Your task to perform on an android device: Open Google Chrome and click the shortcut for Amazon.com Image 0: 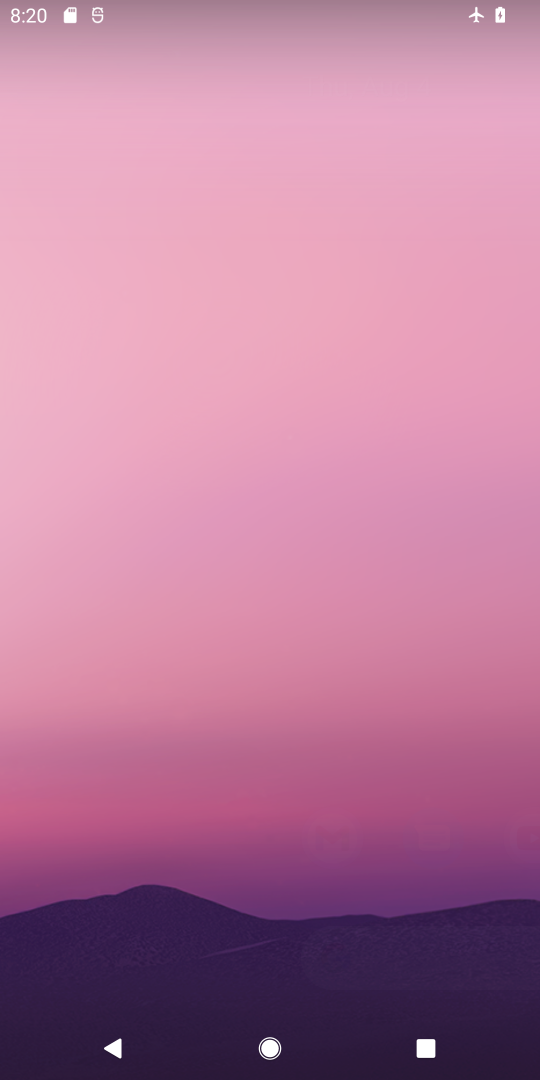
Step 0: press home button
Your task to perform on an android device: Open Google Chrome and click the shortcut for Amazon.com Image 1: 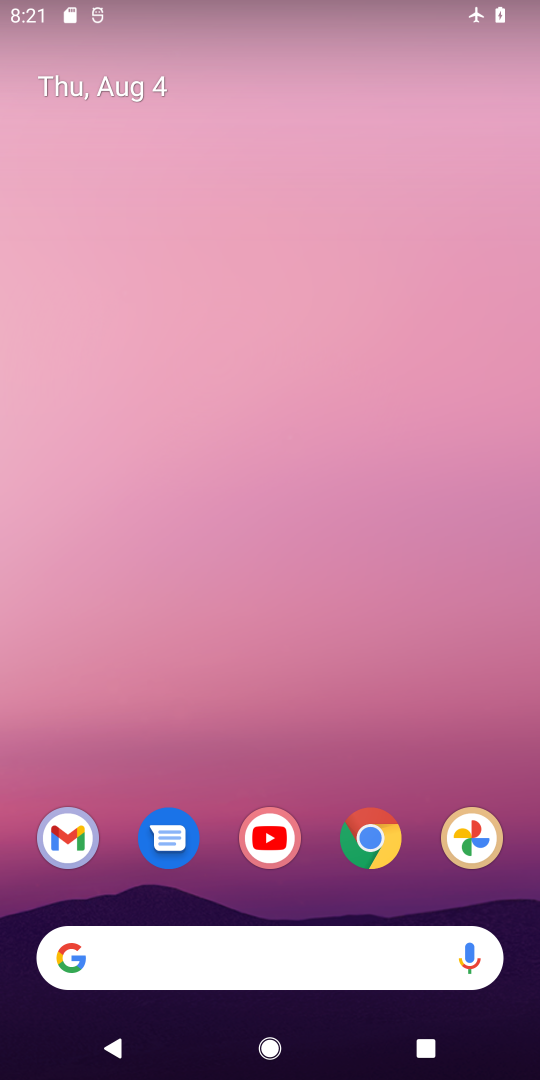
Step 1: drag from (246, 759) to (255, 257)
Your task to perform on an android device: Open Google Chrome and click the shortcut for Amazon.com Image 2: 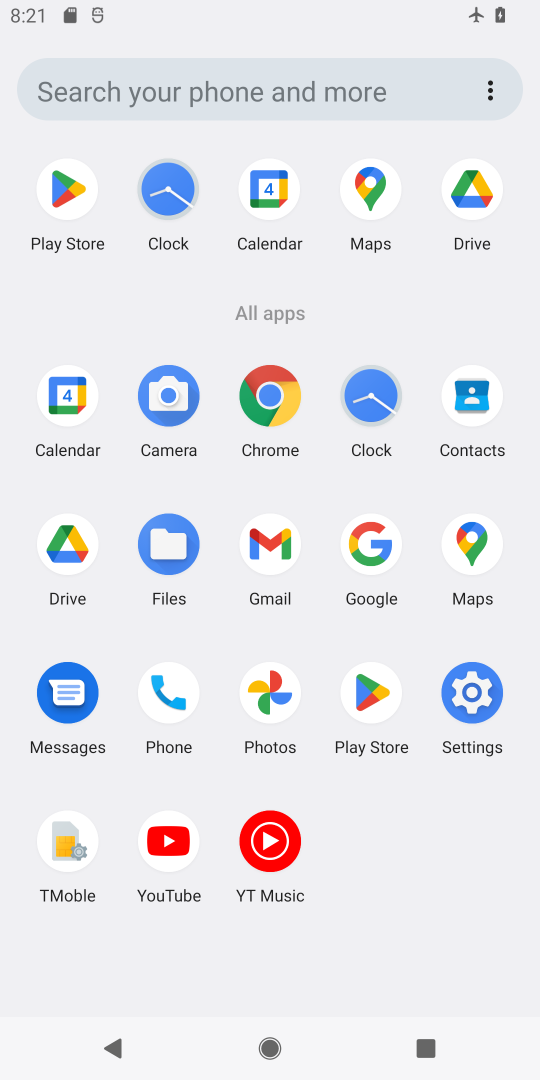
Step 2: click (281, 398)
Your task to perform on an android device: Open Google Chrome and click the shortcut for Amazon.com Image 3: 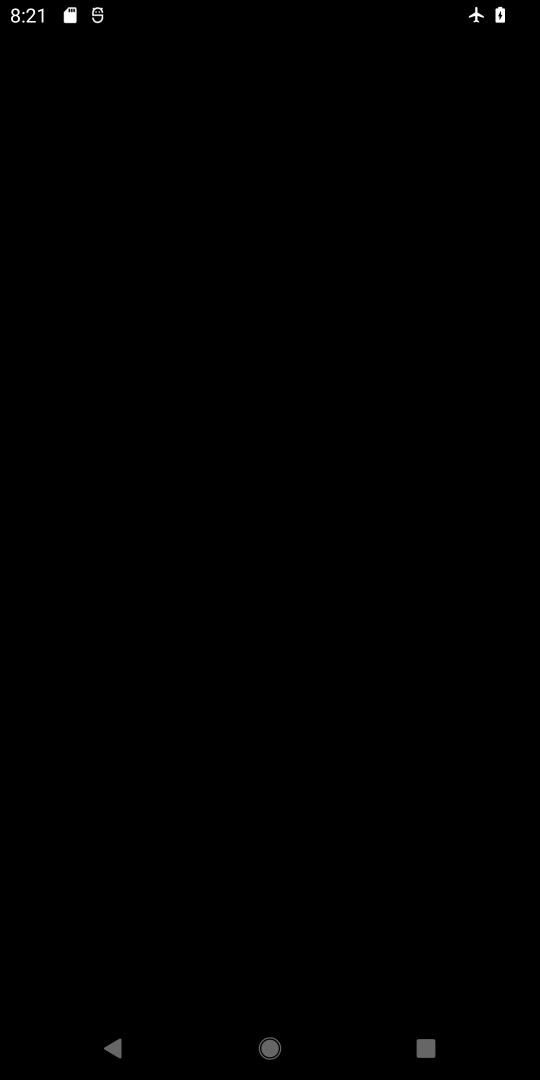
Step 3: press home button
Your task to perform on an android device: Open Google Chrome and click the shortcut for Amazon.com Image 4: 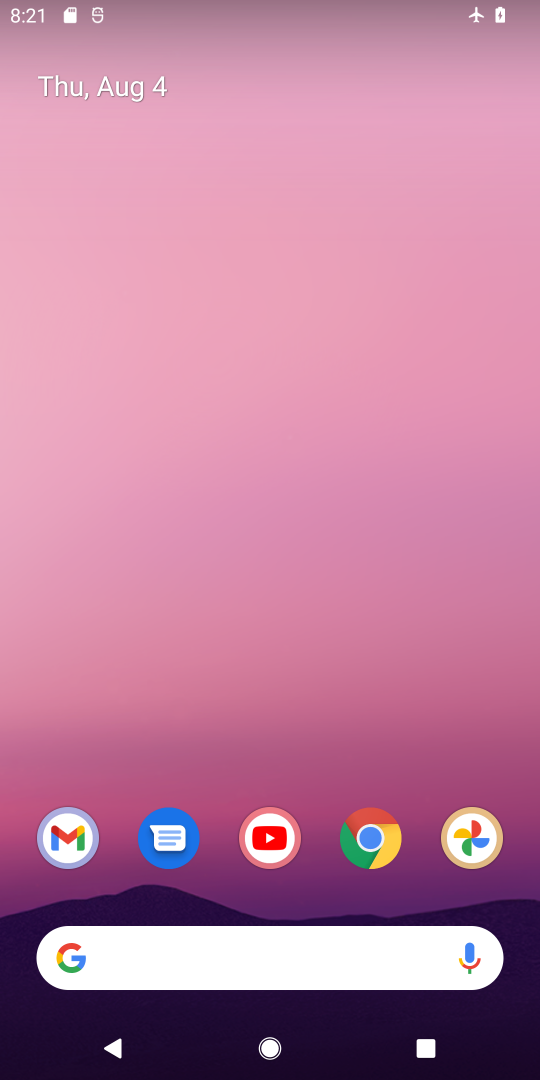
Step 4: drag from (306, 727) to (305, 244)
Your task to perform on an android device: Open Google Chrome and click the shortcut for Amazon.com Image 5: 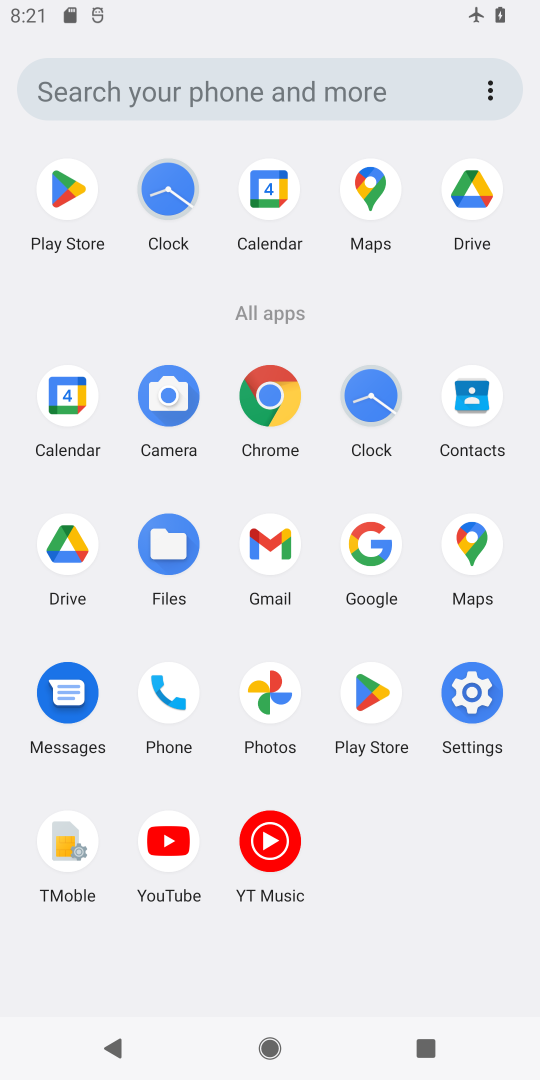
Step 5: click (263, 413)
Your task to perform on an android device: Open Google Chrome and click the shortcut for Amazon.com Image 6: 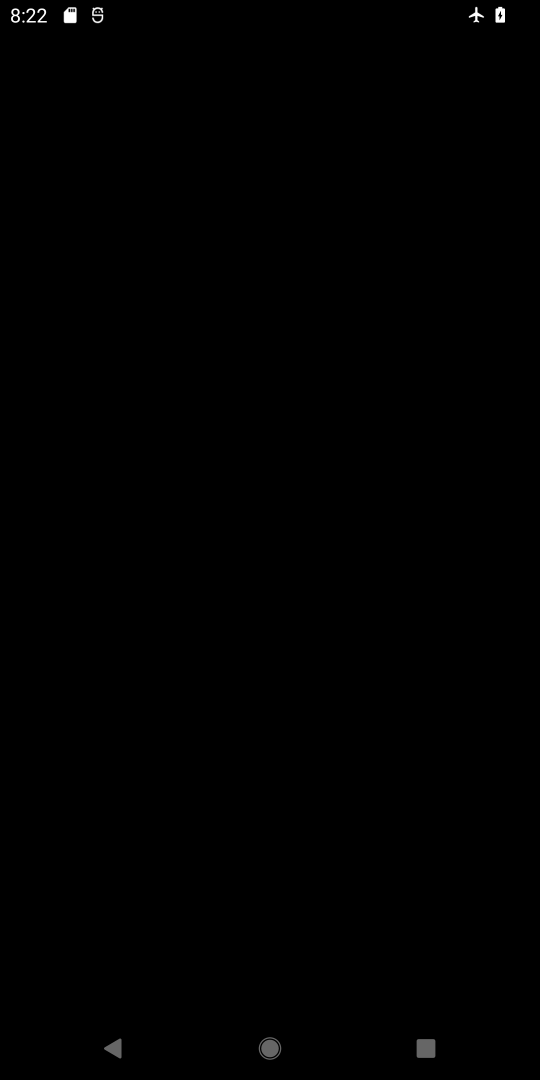
Step 6: task complete